Your task to perform on an android device: Open Google Chrome and click the shortcut for Amazon.com Image 0: 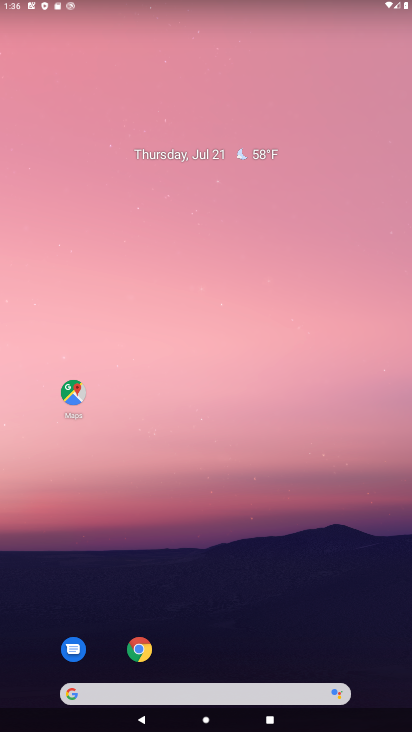
Step 0: click (149, 645)
Your task to perform on an android device: Open Google Chrome and click the shortcut for Amazon.com Image 1: 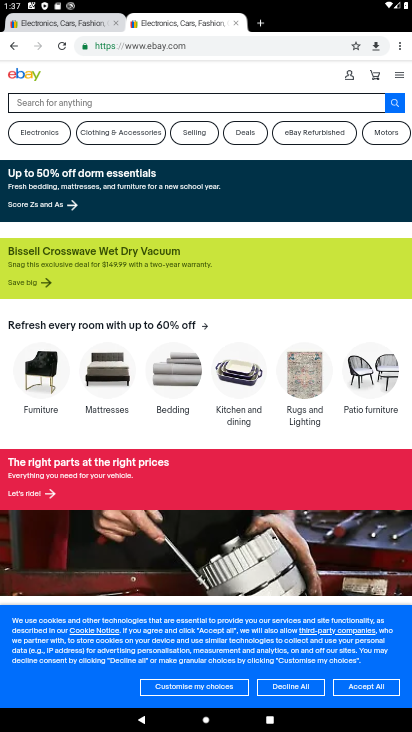
Step 1: click (403, 46)
Your task to perform on an android device: Open Google Chrome and click the shortcut for Amazon.com Image 2: 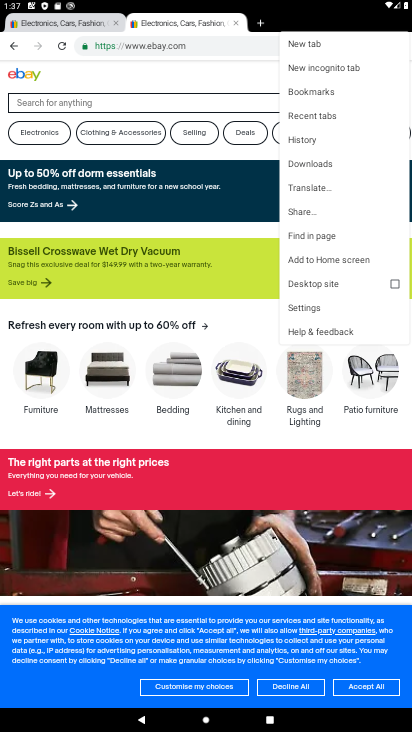
Step 2: click (310, 312)
Your task to perform on an android device: Open Google Chrome and click the shortcut for Amazon.com Image 3: 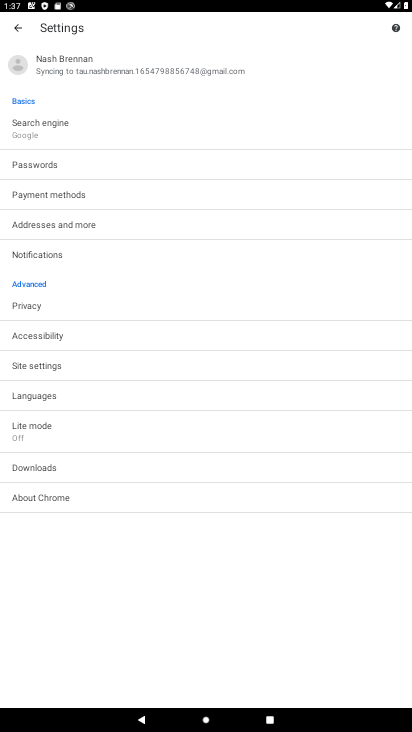
Step 3: task complete